Your task to perform on an android device: move an email to a new category in the gmail app Image 0: 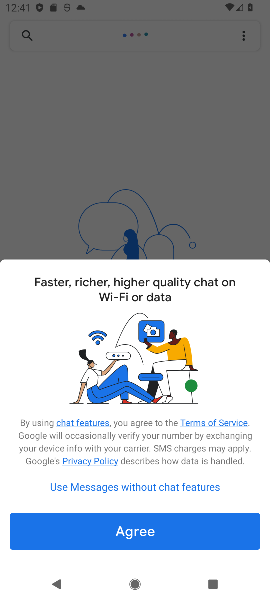
Step 0: press home button
Your task to perform on an android device: move an email to a new category in the gmail app Image 1: 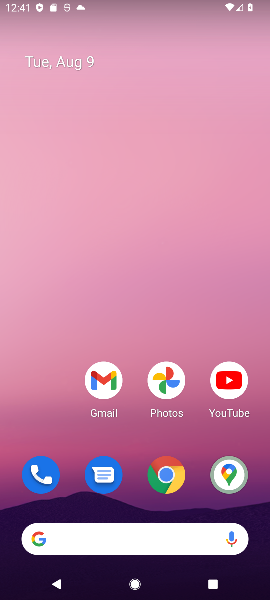
Step 1: click (108, 366)
Your task to perform on an android device: move an email to a new category in the gmail app Image 2: 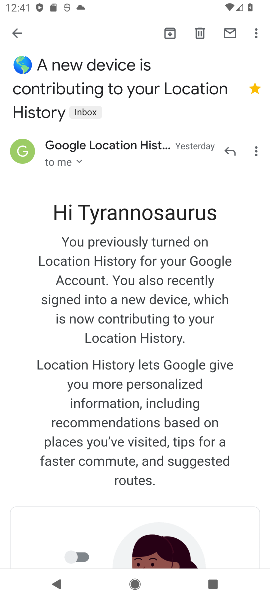
Step 2: click (255, 37)
Your task to perform on an android device: move an email to a new category in the gmail app Image 3: 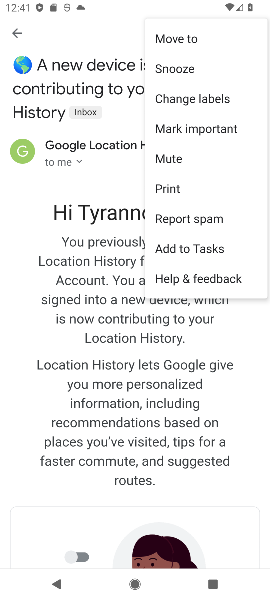
Step 3: click (187, 136)
Your task to perform on an android device: move an email to a new category in the gmail app Image 4: 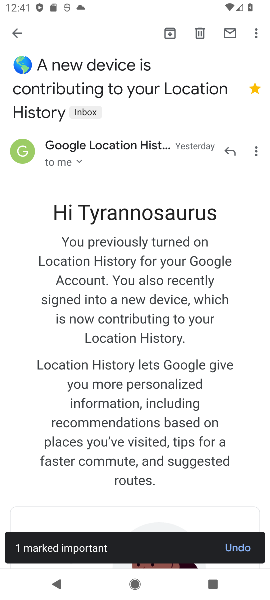
Step 4: task complete